Your task to perform on an android device: Go to sound settings Image 0: 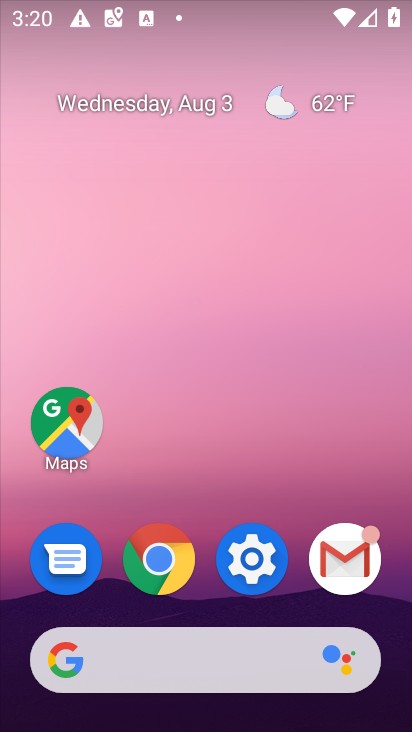
Step 0: press home button
Your task to perform on an android device: Go to sound settings Image 1: 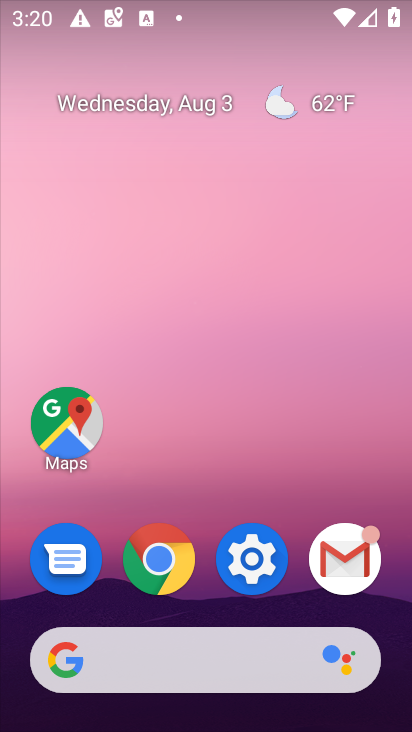
Step 1: click (231, 557)
Your task to perform on an android device: Go to sound settings Image 2: 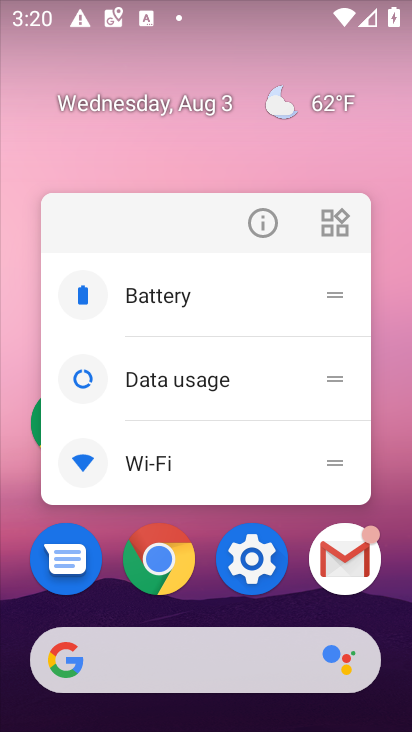
Step 2: click (254, 545)
Your task to perform on an android device: Go to sound settings Image 3: 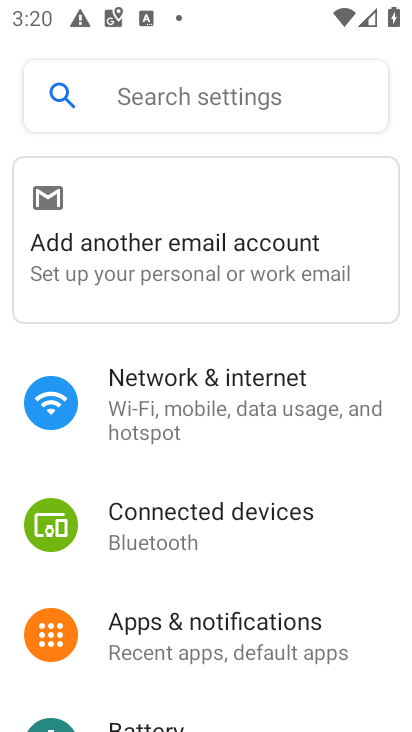
Step 3: click (150, 102)
Your task to perform on an android device: Go to sound settings Image 4: 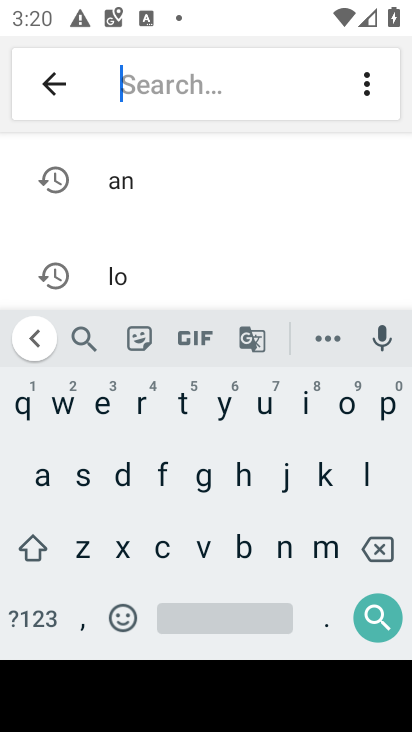
Step 4: click (72, 481)
Your task to perform on an android device: Go to sound settings Image 5: 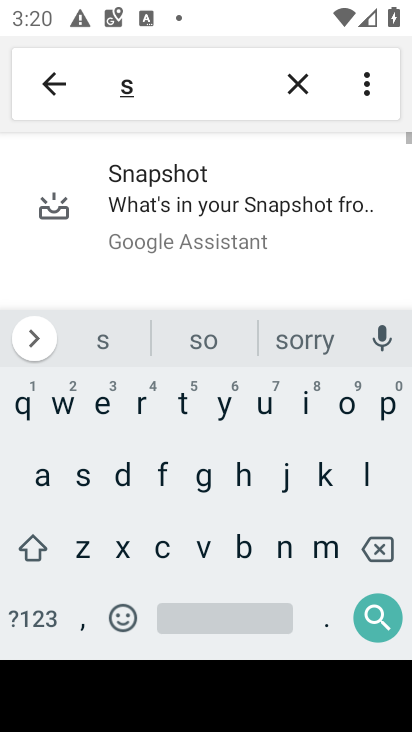
Step 5: click (341, 411)
Your task to perform on an android device: Go to sound settings Image 6: 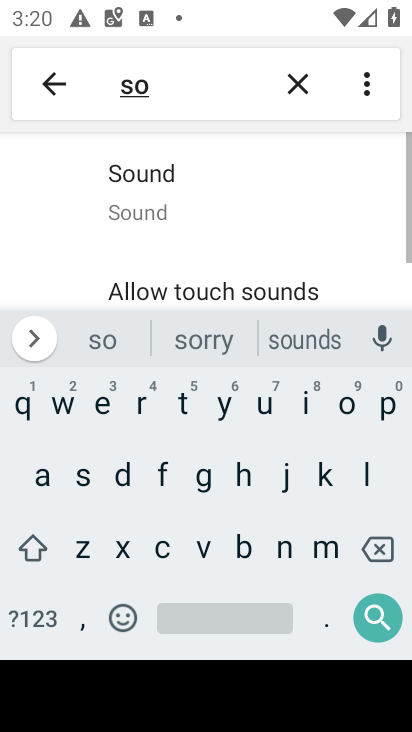
Step 6: click (167, 186)
Your task to perform on an android device: Go to sound settings Image 7: 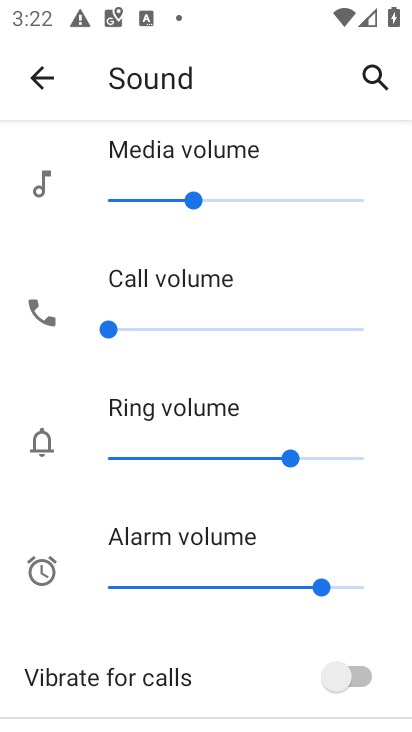
Step 7: task complete